Your task to perform on an android device: Open Chrome and go to settings Image 0: 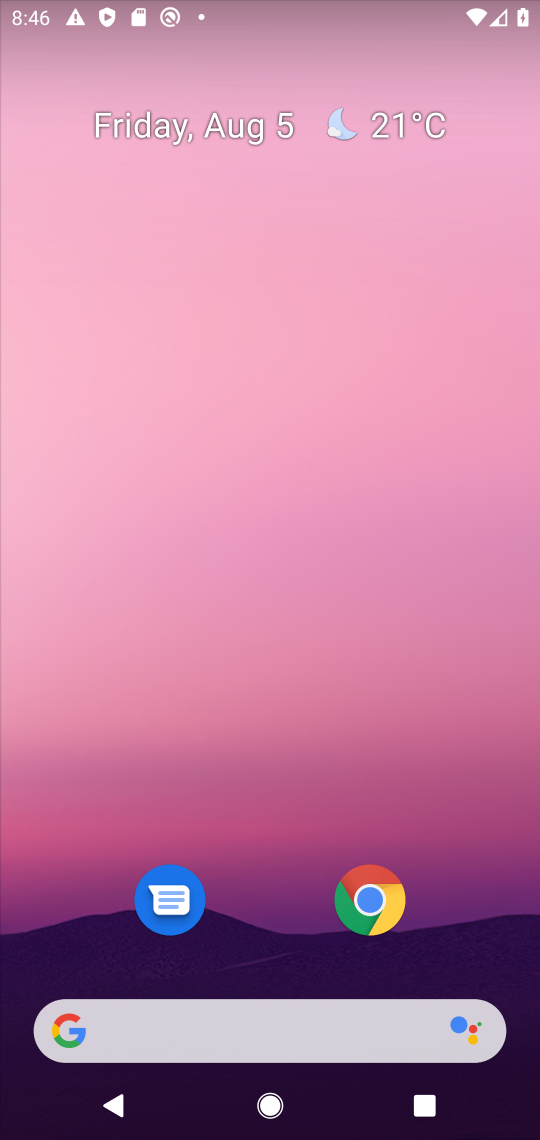
Step 0: click (384, 920)
Your task to perform on an android device: Open Chrome and go to settings Image 1: 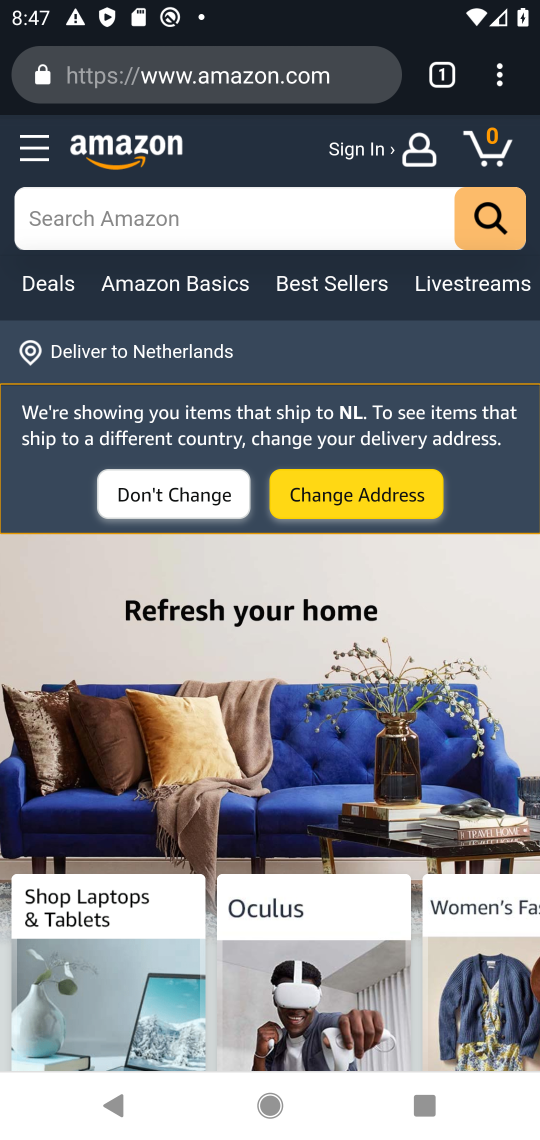
Step 1: click (496, 82)
Your task to perform on an android device: Open Chrome and go to settings Image 2: 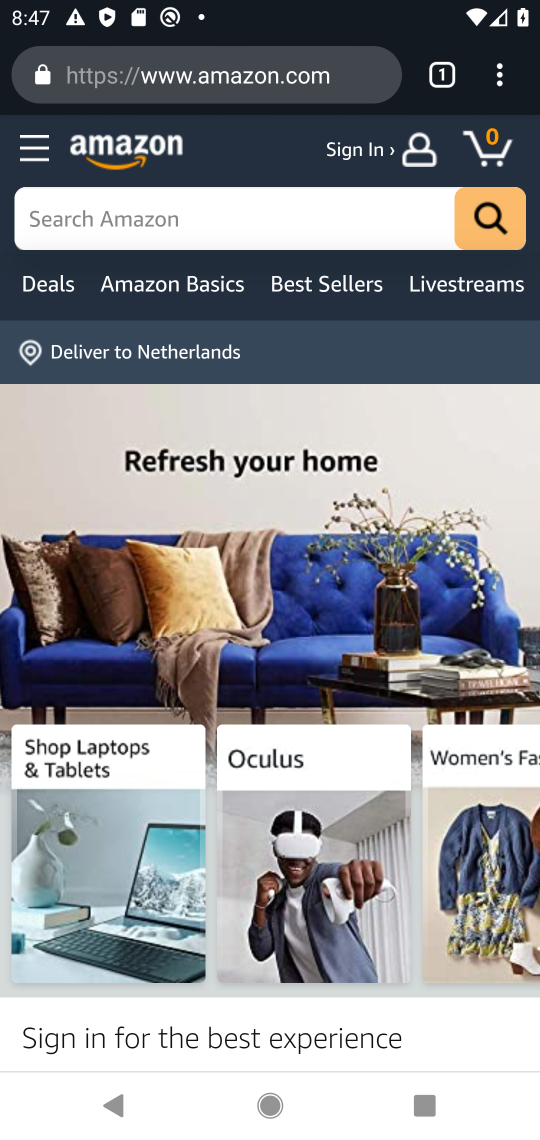
Step 2: task complete